Your task to perform on an android device: Open my contact list Image 0: 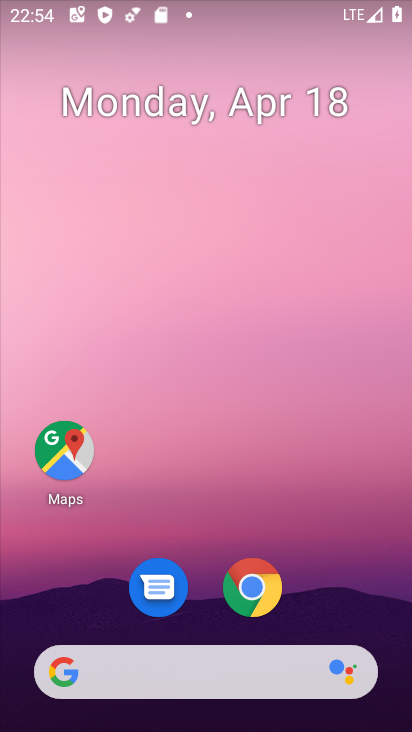
Step 0: drag from (356, 597) to (366, 146)
Your task to perform on an android device: Open my contact list Image 1: 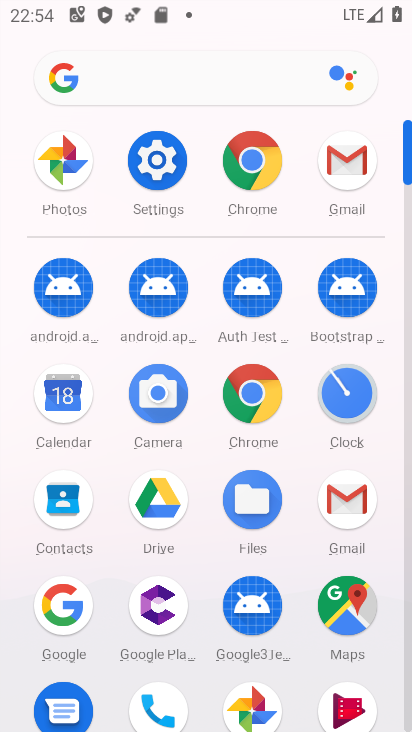
Step 1: drag from (198, 641) to (198, 337)
Your task to perform on an android device: Open my contact list Image 2: 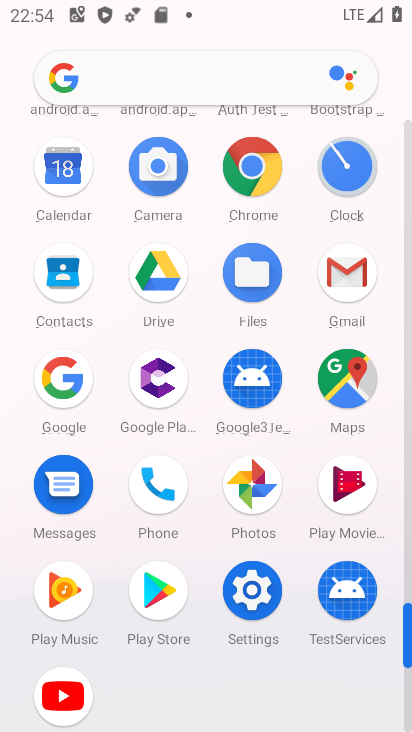
Step 2: click (73, 286)
Your task to perform on an android device: Open my contact list Image 3: 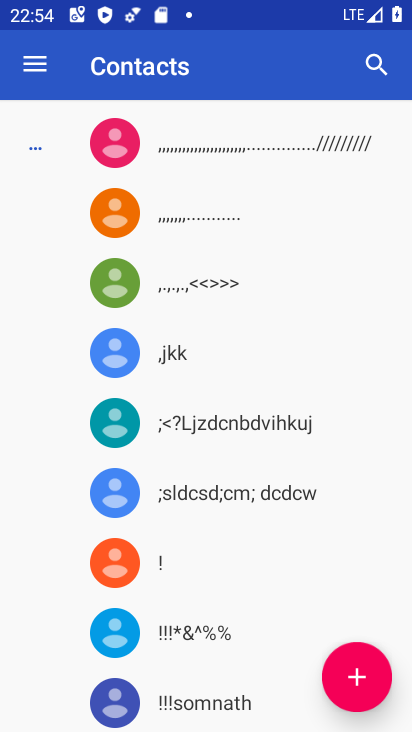
Step 3: task complete